Your task to perform on an android device: Go to Maps Image 0: 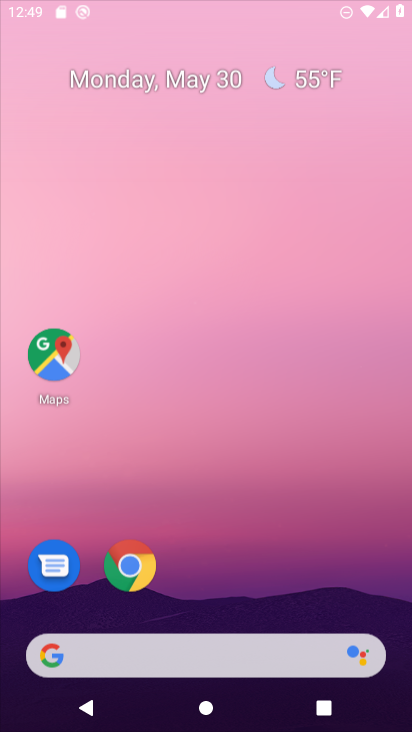
Step 0: press home button
Your task to perform on an android device: Go to Maps Image 1: 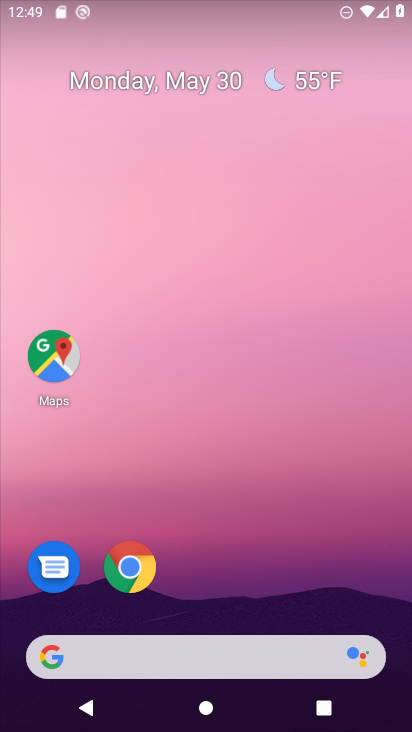
Step 1: click (55, 357)
Your task to perform on an android device: Go to Maps Image 2: 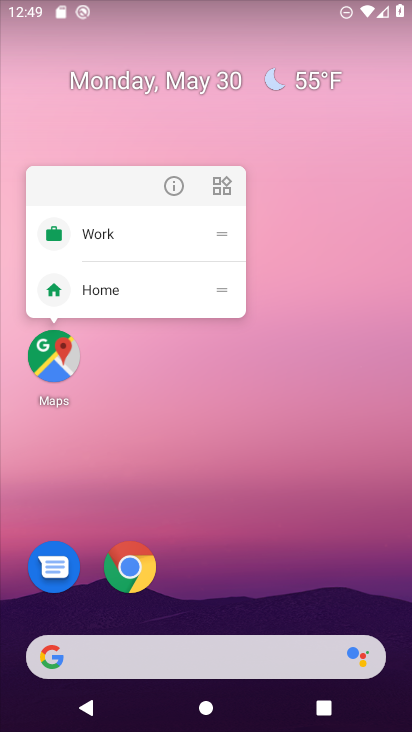
Step 2: click (56, 349)
Your task to perform on an android device: Go to Maps Image 3: 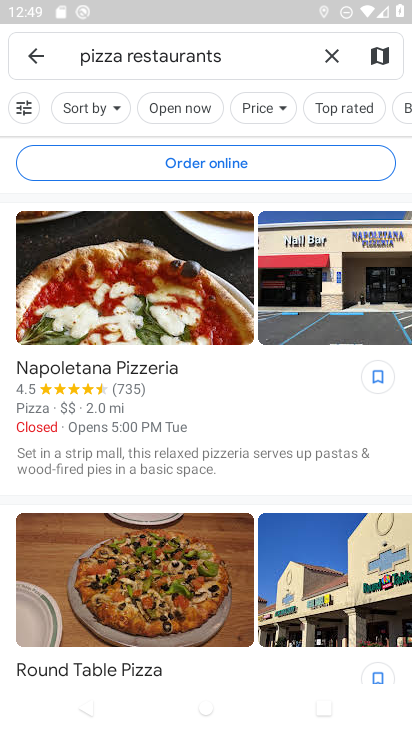
Step 3: click (31, 49)
Your task to perform on an android device: Go to Maps Image 4: 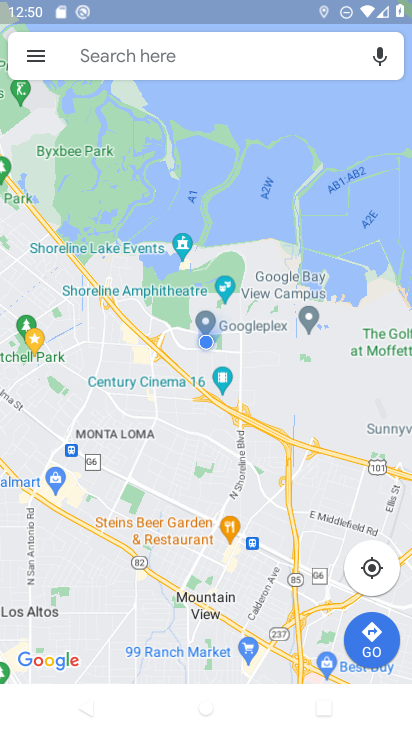
Step 4: task complete